Your task to perform on an android device: turn off javascript in the chrome app Image 0: 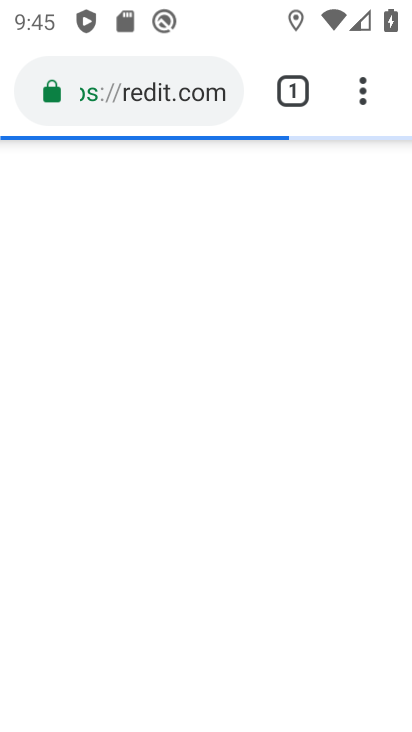
Step 0: press home button
Your task to perform on an android device: turn off javascript in the chrome app Image 1: 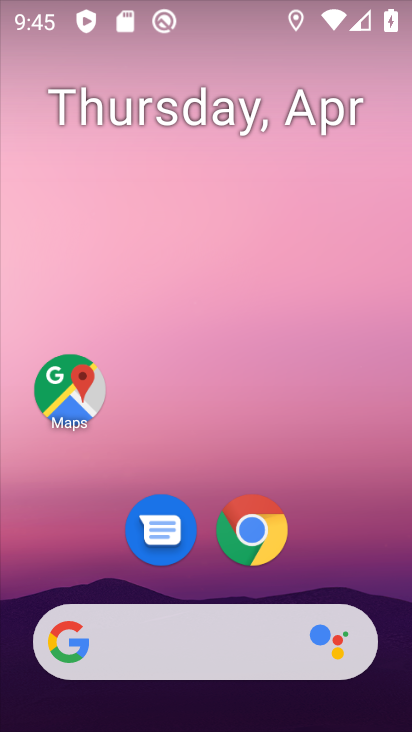
Step 1: click (255, 540)
Your task to perform on an android device: turn off javascript in the chrome app Image 2: 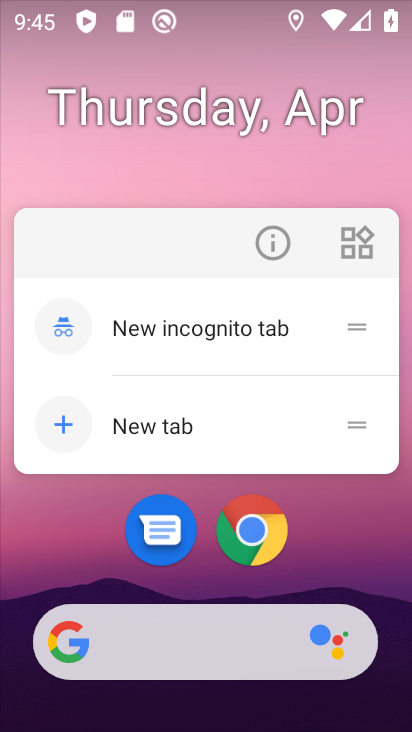
Step 2: click (255, 540)
Your task to perform on an android device: turn off javascript in the chrome app Image 3: 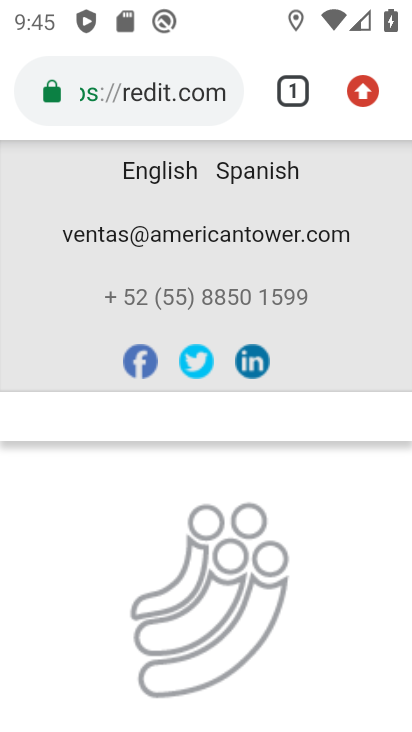
Step 3: press back button
Your task to perform on an android device: turn off javascript in the chrome app Image 4: 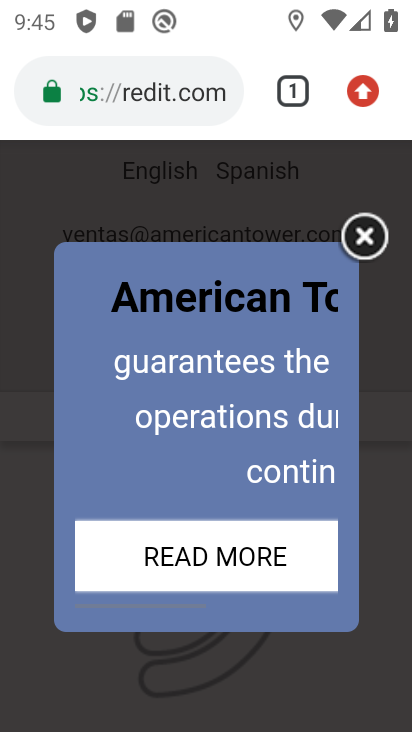
Step 4: press back button
Your task to perform on an android device: turn off javascript in the chrome app Image 5: 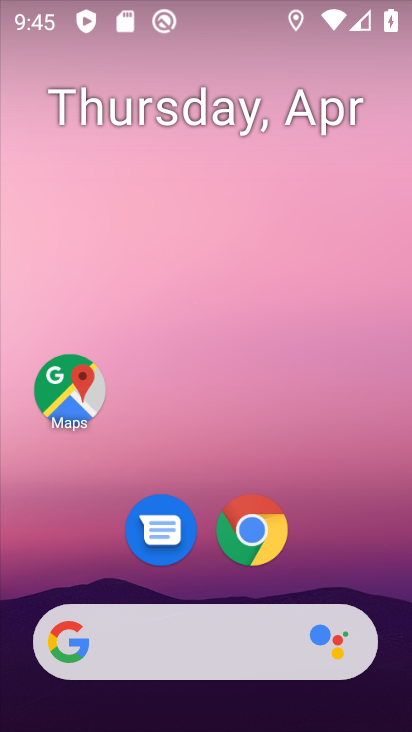
Step 5: click (259, 530)
Your task to perform on an android device: turn off javascript in the chrome app Image 6: 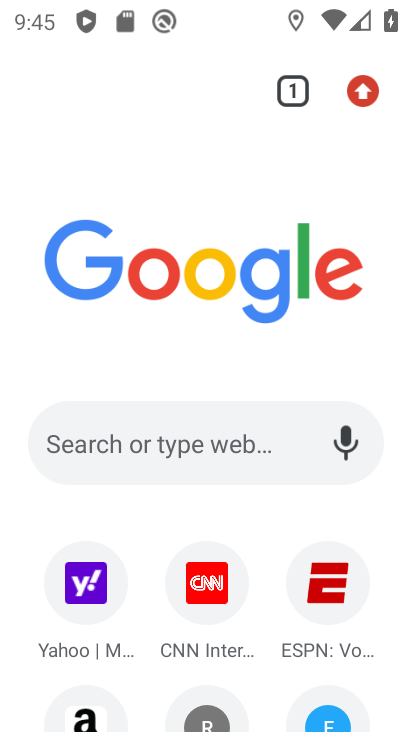
Step 6: click (363, 95)
Your task to perform on an android device: turn off javascript in the chrome app Image 7: 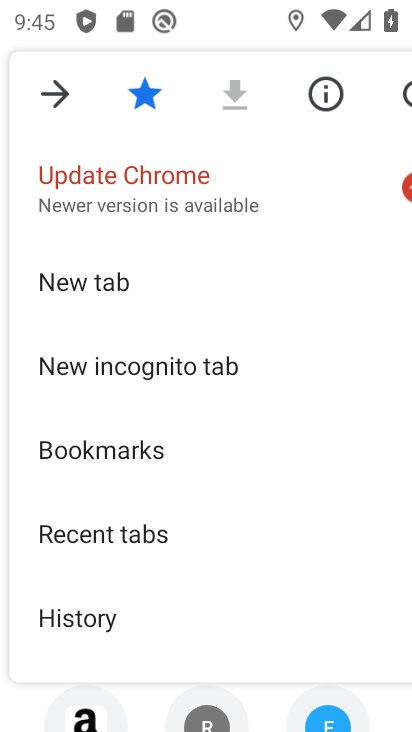
Step 7: drag from (180, 634) to (176, 348)
Your task to perform on an android device: turn off javascript in the chrome app Image 8: 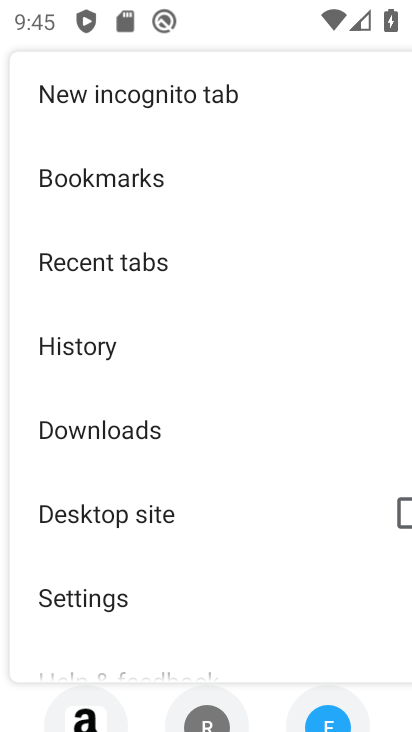
Step 8: click (117, 609)
Your task to perform on an android device: turn off javascript in the chrome app Image 9: 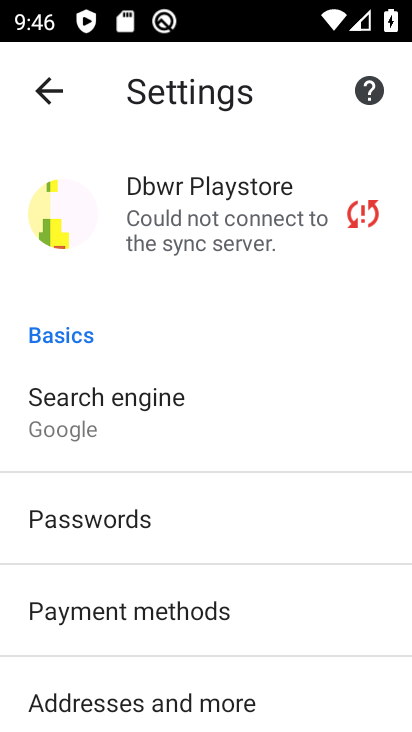
Step 9: drag from (109, 645) to (154, 185)
Your task to perform on an android device: turn off javascript in the chrome app Image 10: 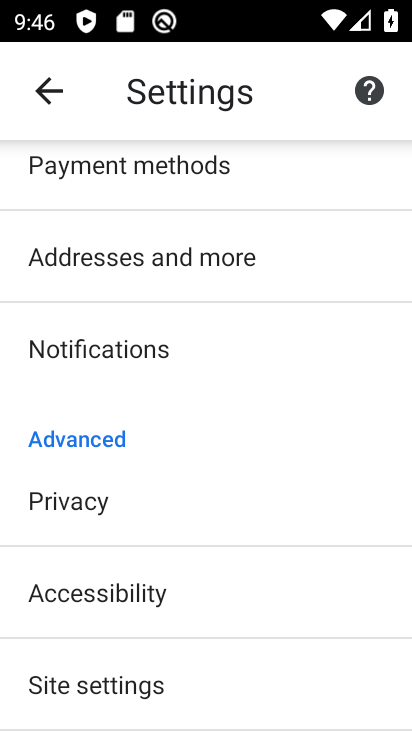
Step 10: click (177, 681)
Your task to perform on an android device: turn off javascript in the chrome app Image 11: 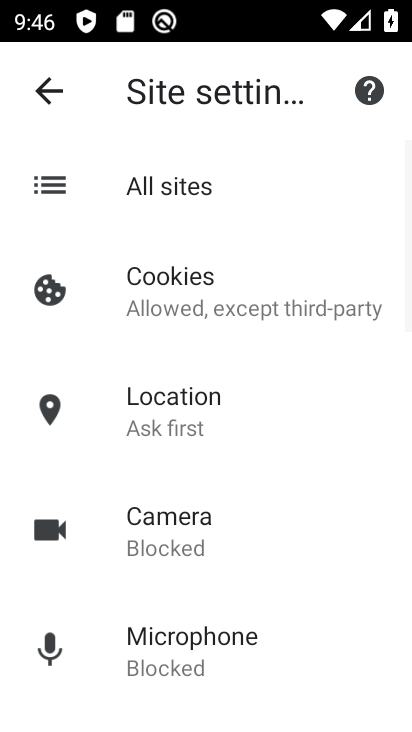
Step 11: drag from (177, 681) to (259, 318)
Your task to perform on an android device: turn off javascript in the chrome app Image 12: 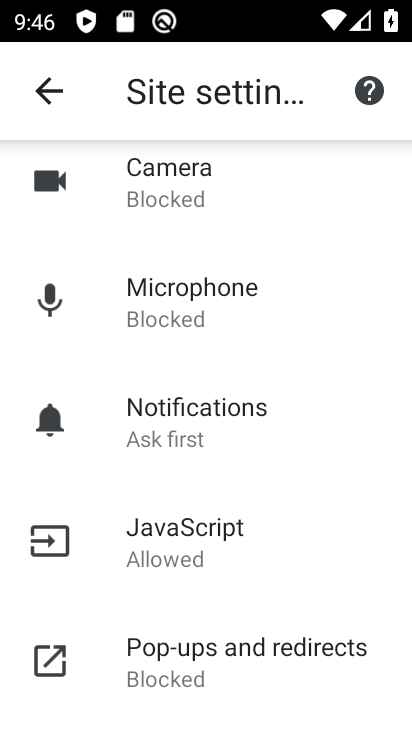
Step 12: click (200, 565)
Your task to perform on an android device: turn off javascript in the chrome app Image 13: 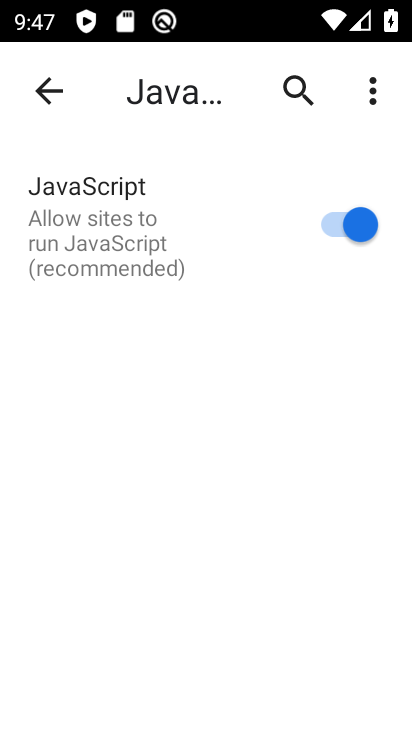
Step 13: click (294, 232)
Your task to perform on an android device: turn off javascript in the chrome app Image 14: 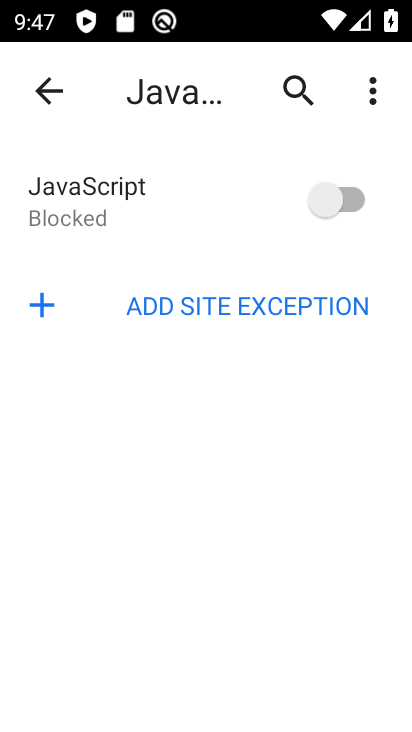
Step 14: task complete